Your task to perform on an android device: turn off improve location accuracy Image 0: 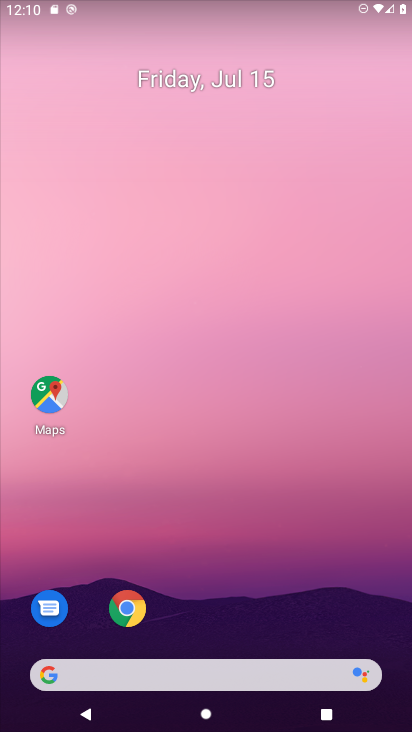
Step 0: drag from (166, 673) to (358, 10)
Your task to perform on an android device: turn off improve location accuracy Image 1: 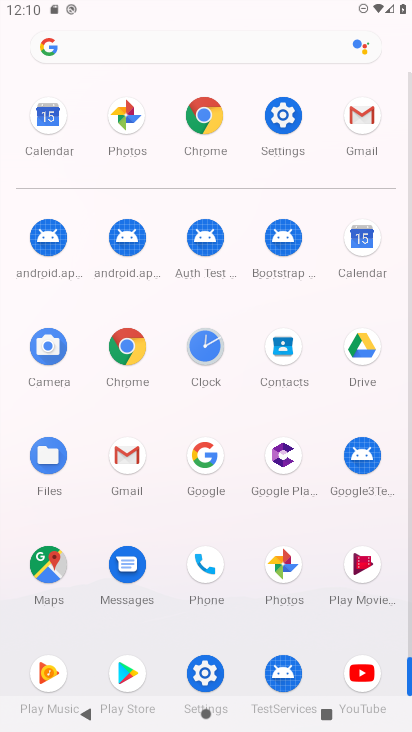
Step 1: click (276, 113)
Your task to perform on an android device: turn off improve location accuracy Image 2: 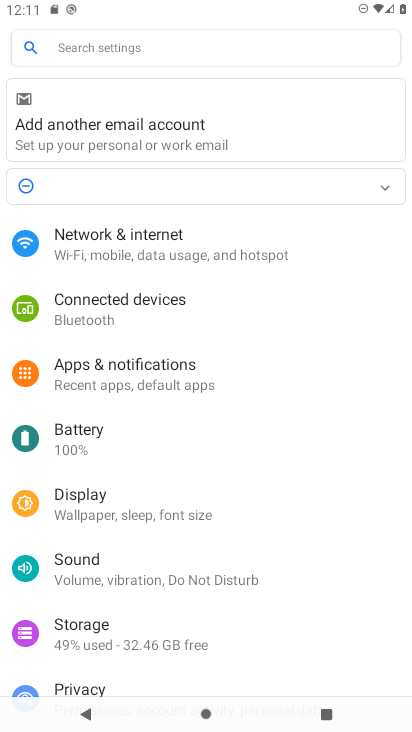
Step 2: drag from (135, 651) to (236, 220)
Your task to perform on an android device: turn off improve location accuracy Image 3: 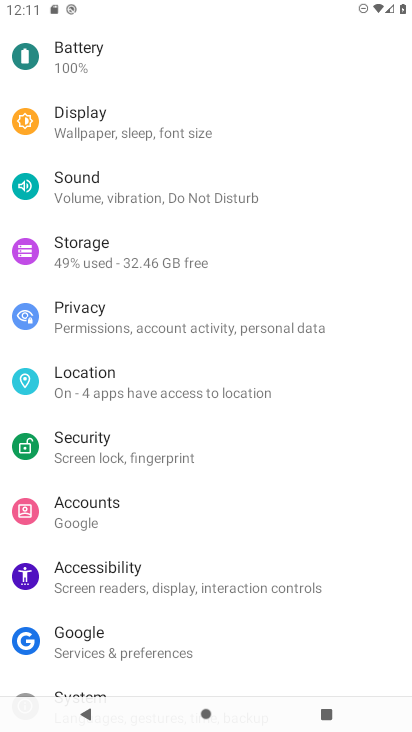
Step 3: click (99, 384)
Your task to perform on an android device: turn off improve location accuracy Image 4: 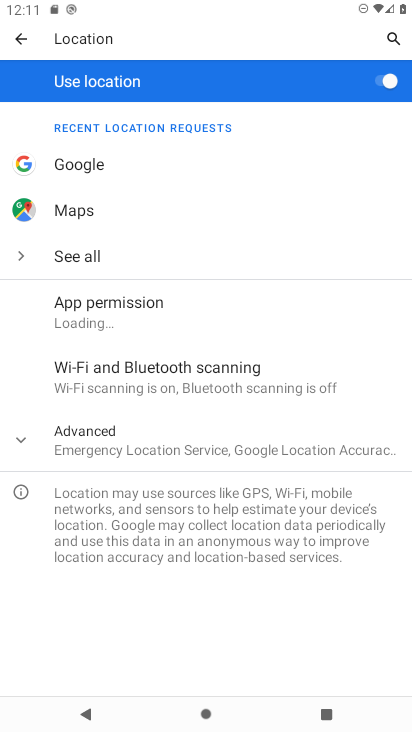
Step 4: click (185, 446)
Your task to perform on an android device: turn off improve location accuracy Image 5: 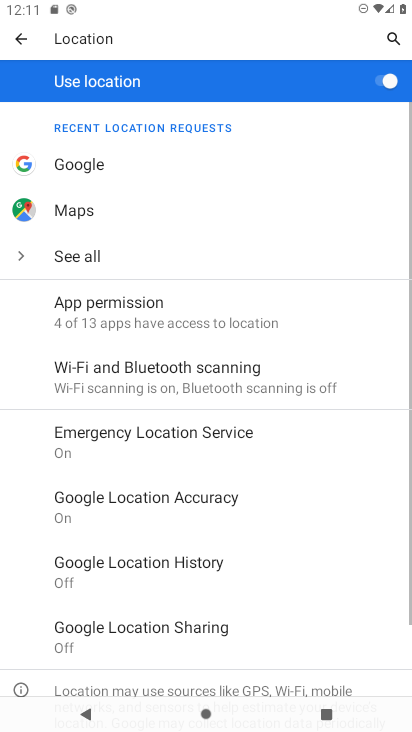
Step 5: click (178, 499)
Your task to perform on an android device: turn off improve location accuracy Image 6: 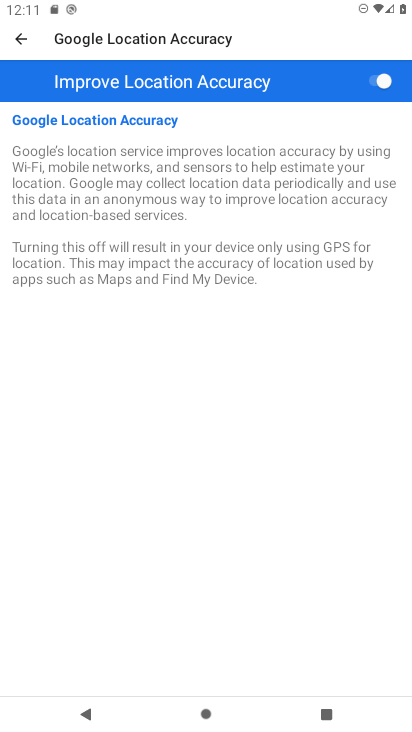
Step 6: click (388, 83)
Your task to perform on an android device: turn off improve location accuracy Image 7: 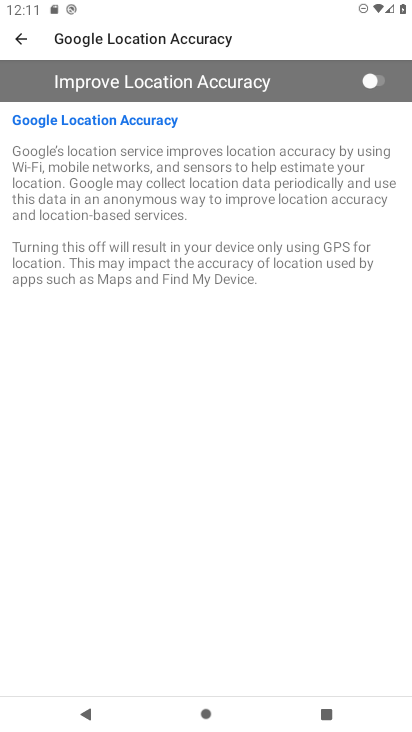
Step 7: task complete